Your task to perform on an android device: change your default location settings in chrome Image 0: 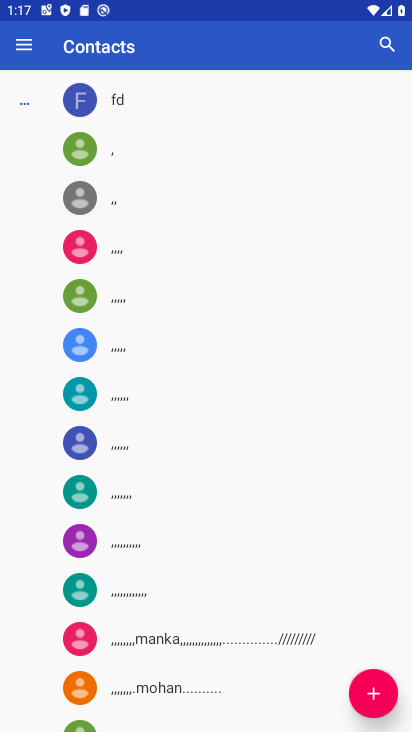
Step 0: press home button
Your task to perform on an android device: change your default location settings in chrome Image 1: 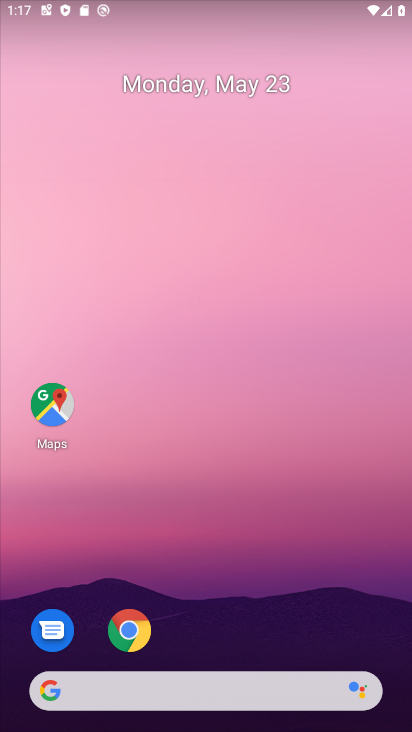
Step 1: drag from (198, 576) to (227, 162)
Your task to perform on an android device: change your default location settings in chrome Image 2: 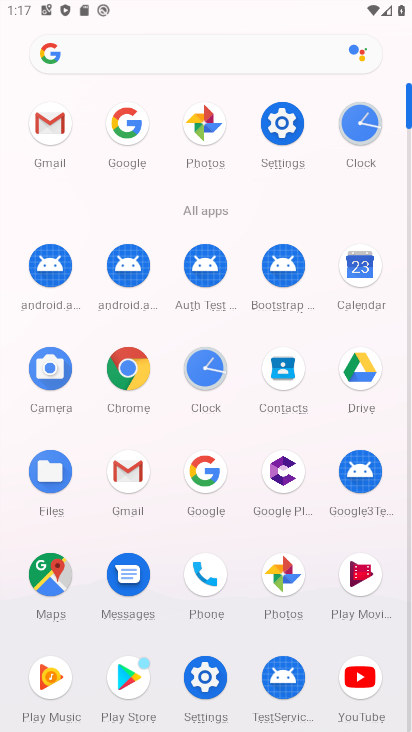
Step 2: click (121, 371)
Your task to perform on an android device: change your default location settings in chrome Image 3: 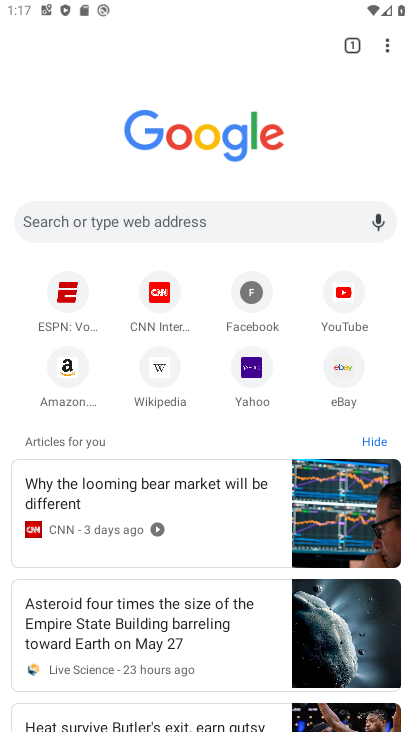
Step 3: click (380, 43)
Your task to perform on an android device: change your default location settings in chrome Image 4: 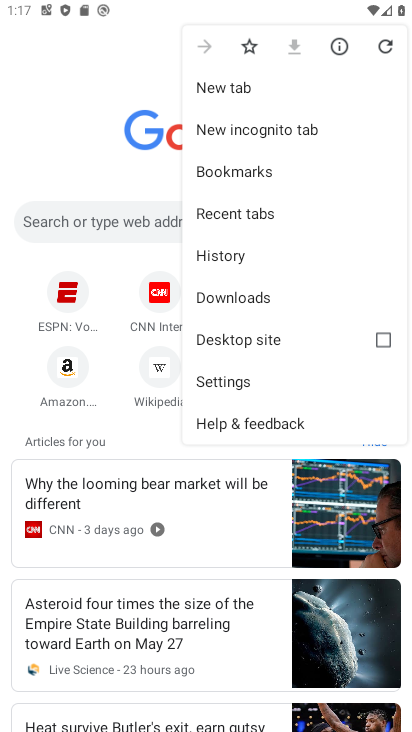
Step 4: click (205, 377)
Your task to perform on an android device: change your default location settings in chrome Image 5: 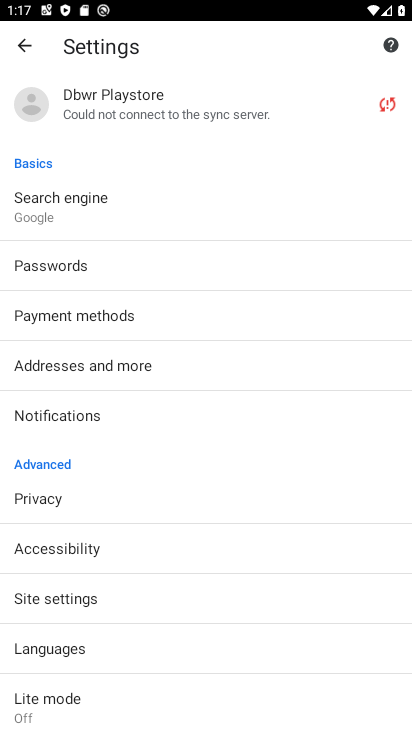
Step 5: drag from (157, 638) to (169, 366)
Your task to perform on an android device: change your default location settings in chrome Image 6: 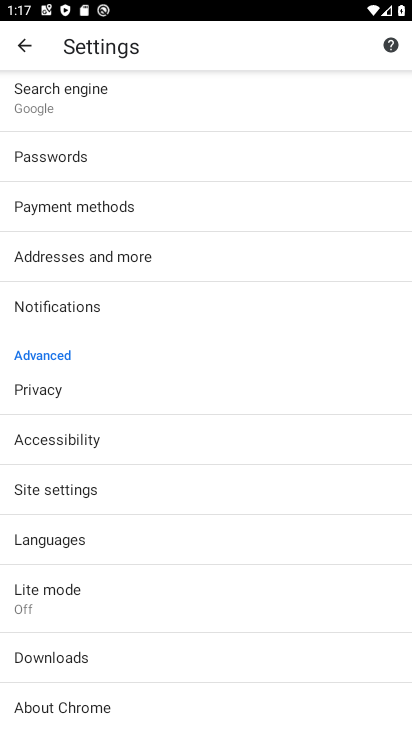
Step 6: click (82, 500)
Your task to perform on an android device: change your default location settings in chrome Image 7: 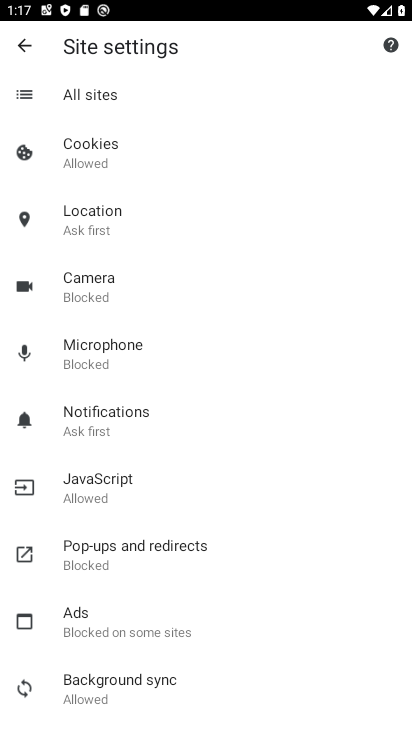
Step 7: click (109, 222)
Your task to perform on an android device: change your default location settings in chrome Image 8: 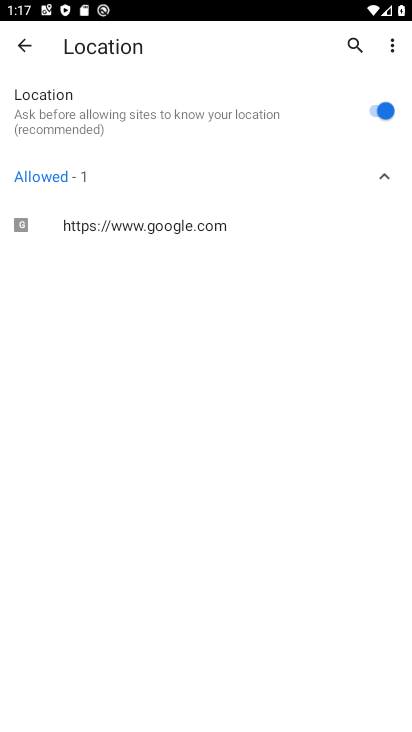
Step 8: click (382, 112)
Your task to perform on an android device: change your default location settings in chrome Image 9: 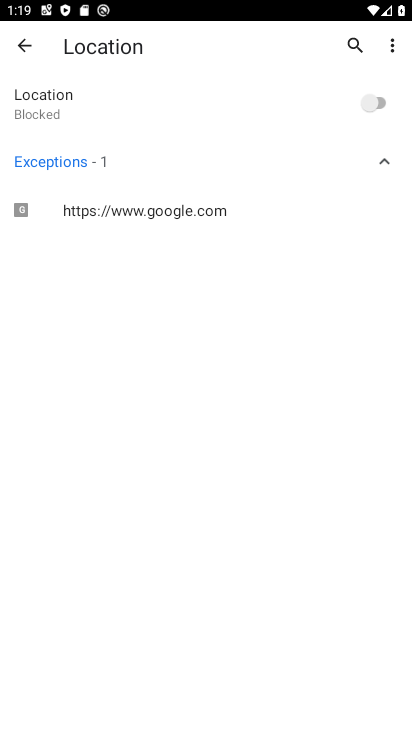
Step 9: task complete